Your task to perform on an android device: Turn on the flashlight Image 0: 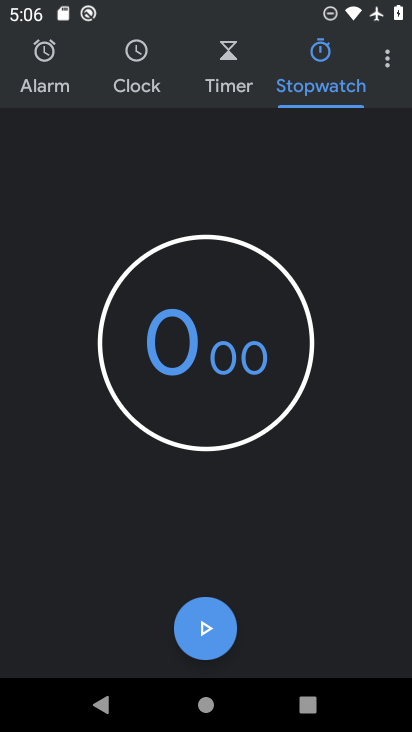
Step 0: press home button
Your task to perform on an android device: Turn on the flashlight Image 1: 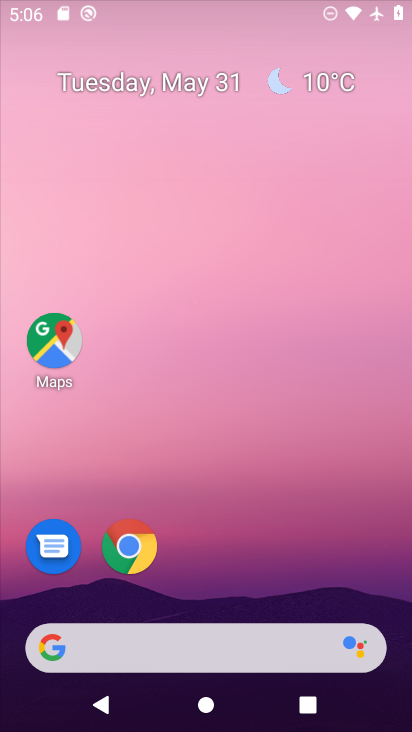
Step 1: task complete